Your task to perform on an android device: see tabs open on other devices in the chrome app Image 0: 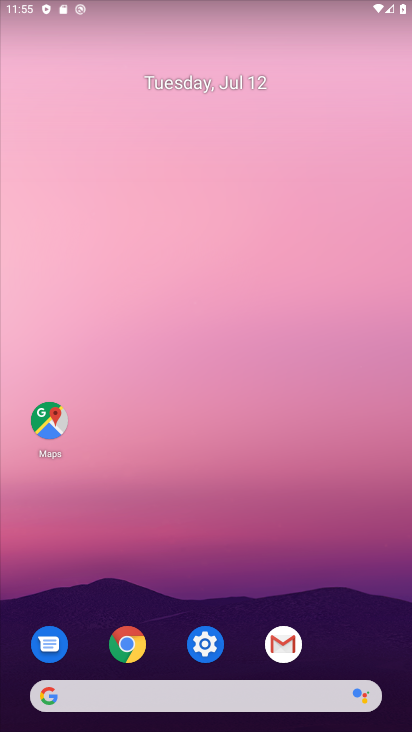
Step 0: click (124, 638)
Your task to perform on an android device: see tabs open on other devices in the chrome app Image 1: 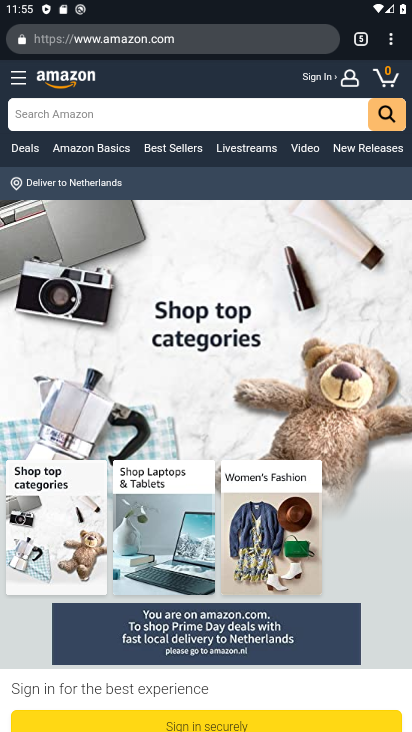
Step 1: click (386, 46)
Your task to perform on an android device: see tabs open on other devices in the chrome app Image 2: 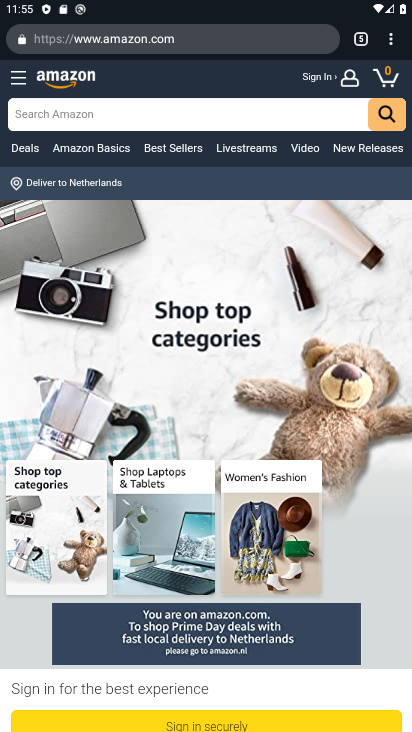
Step 2: click (391, 47)
Your task to perform on an android device: see tabs open on other devices in the chrome app Image 3: 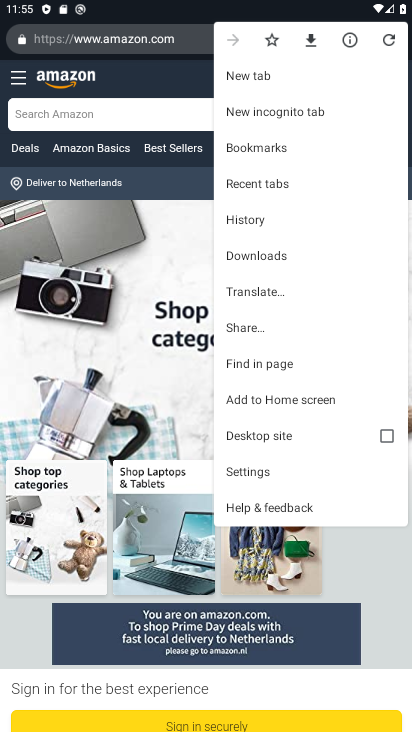
Step 3: click (262, 81)
Your task to perform on an android device: see tabs open on other devices in the chrome app Image 4: 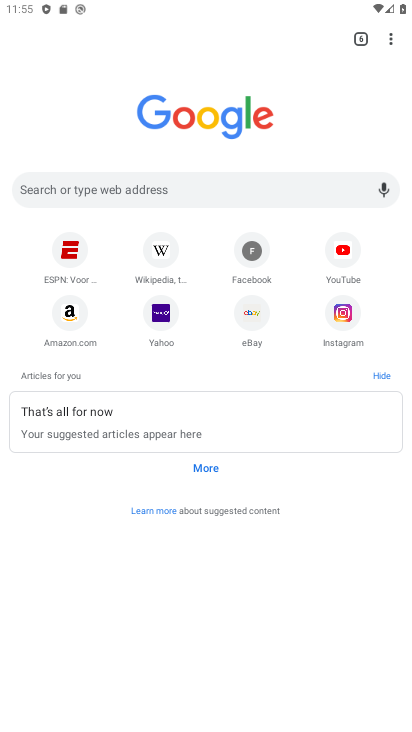
Step 4: task complete